Your task to perform on an android device: Open settings on Google Maps Image 0: 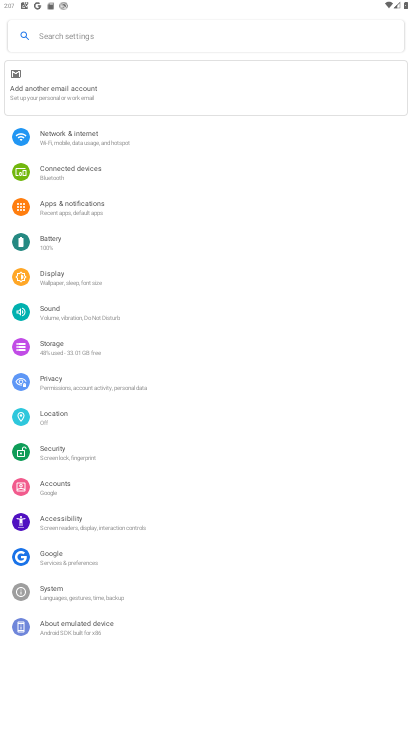
Step 0: press home button
Your task to perform on an android device: Open settings on Google Maps Image 1: 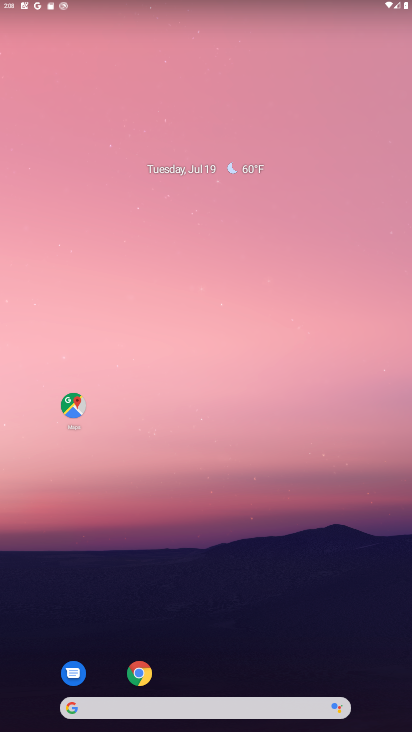
Step 1: click (77, 406)
Your task to perform on an android device: Open settings on Google Maps Image 2: 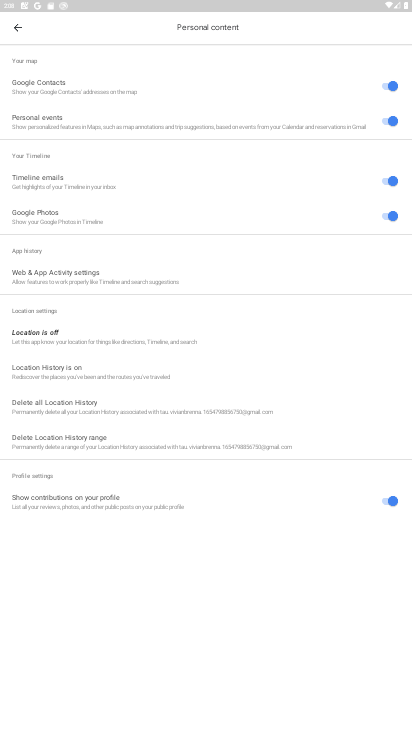
Step 2: click (15, 21)
Your task to perform on an android device: Open settings on Google Maps Image 3: 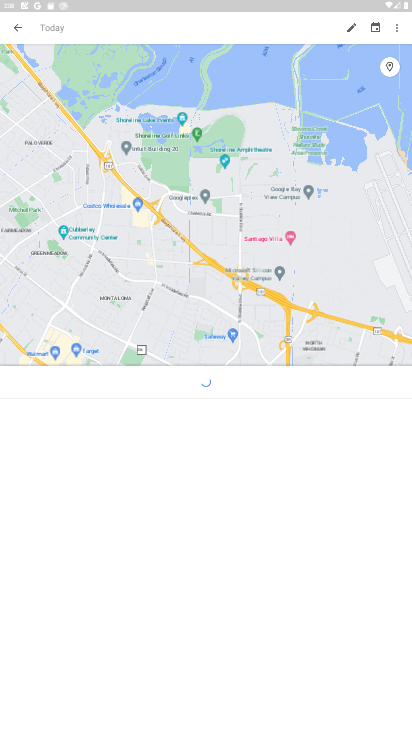
Step 3: click (17, 27)
Your task to perform on an android device: Open settings on Google Maps Image 4: 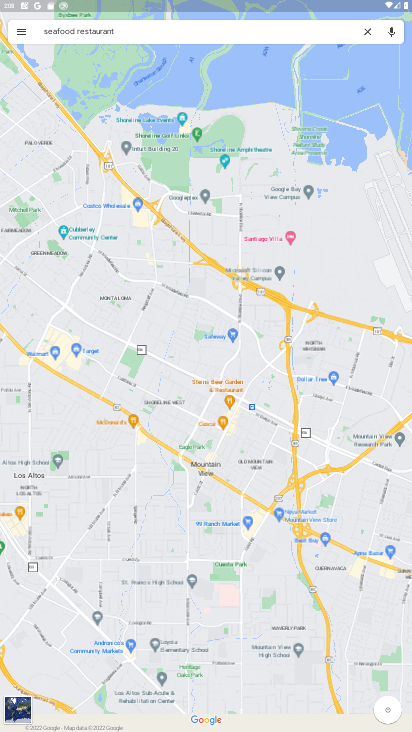
Step 4: click (25, 24)
Your task to perform on an android device: Open settings on Google Maps Image 5: 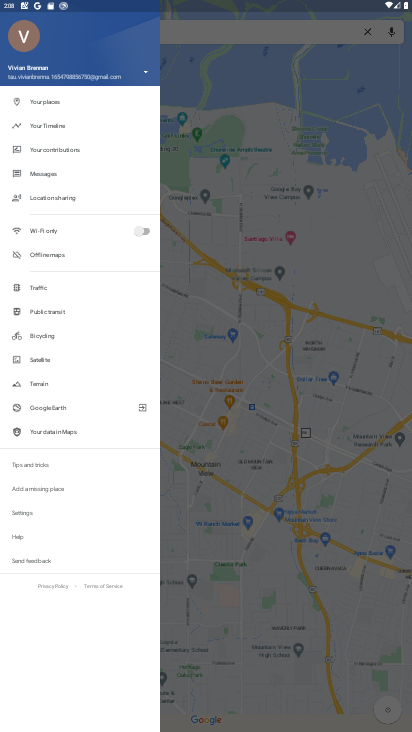
Step 5: click (45, 510)
Your task to perform on an android device: Open settings on Google Maps Image 6: 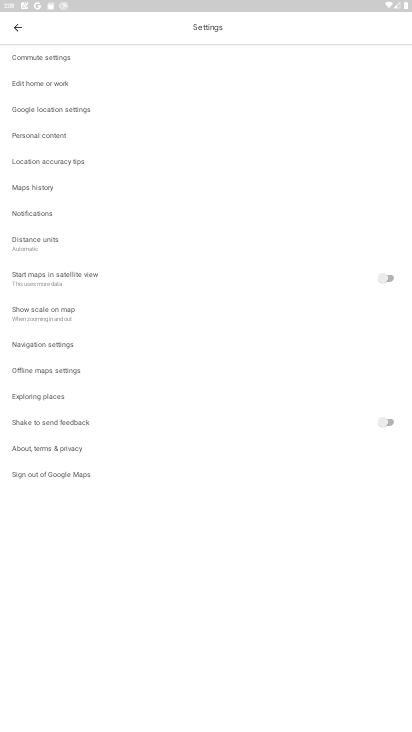
Step 6: task complete